Your task to perform on an android device: change the clock display to digital Image 0: 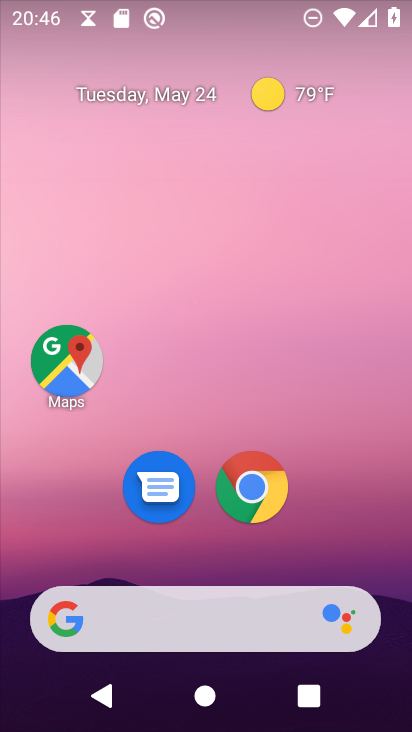
Step 0: drag from (67, 503) to (356, 127)
Your task to perform on an android device: change the clock display to digital Image 1: 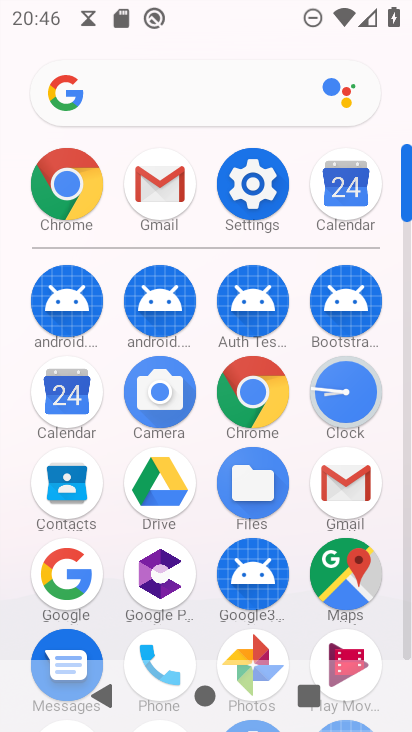
Step 1: click (335, 390)
Your task to perform on an android device: change the clock display to digital Image 2: 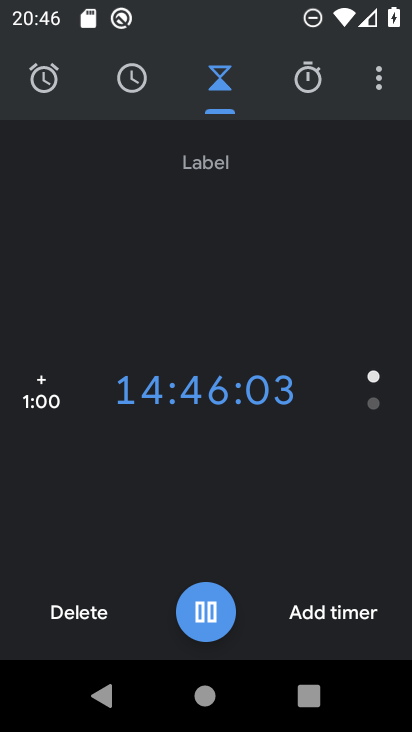
Step 2: click (383, 87)
Your task to perform on an android device: change the clock display to digital Image 3: 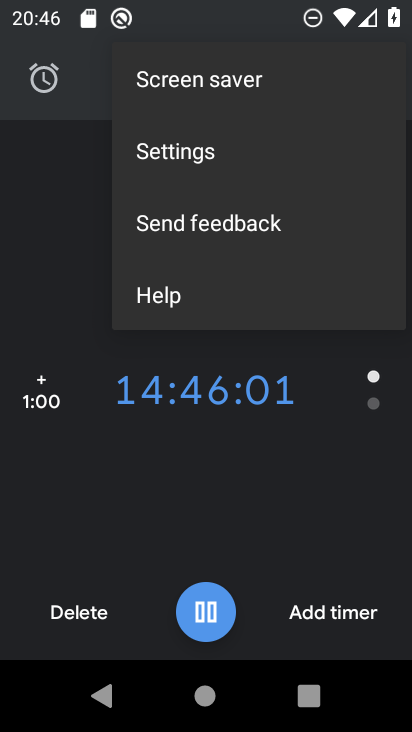
Step 3: click (280, 149)
Your task to perform on an android device: change the clock display to digital Image 4: 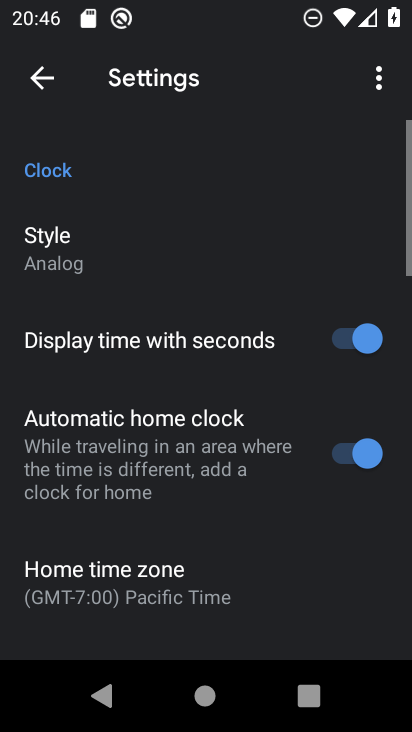
Step 4: click (147, 250)
Your task to perform on an android device: change the clock display to digital Image 5: 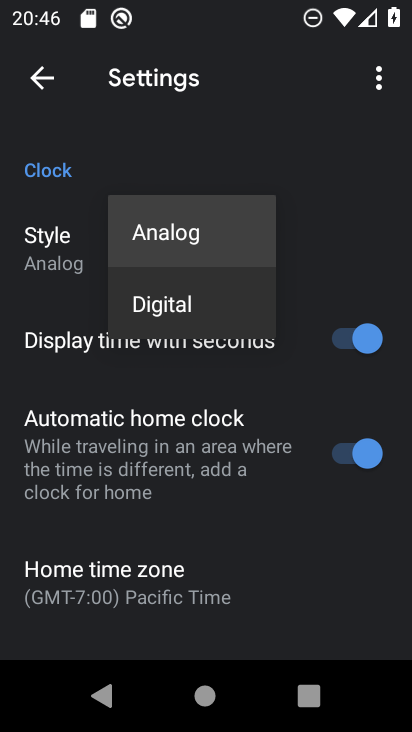
Step 5: click (171, 309)
Your task to perform on an android device: change the clock display to digital Image 6: 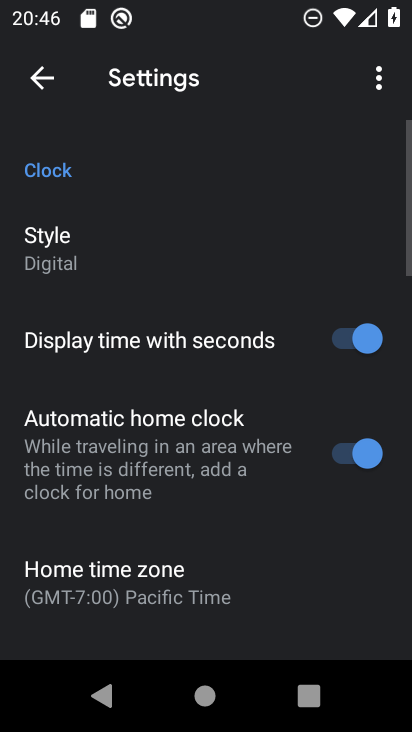
Step 6: task complete